Your task to perform on an android device: turn off translation in the chrome app Image 0: 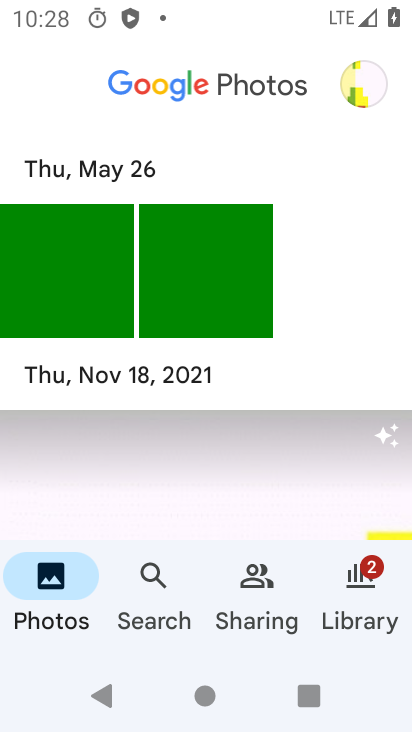
Step 0: press home button
Your task to perform on an android device: turn off translation in the chrome app Image 1: 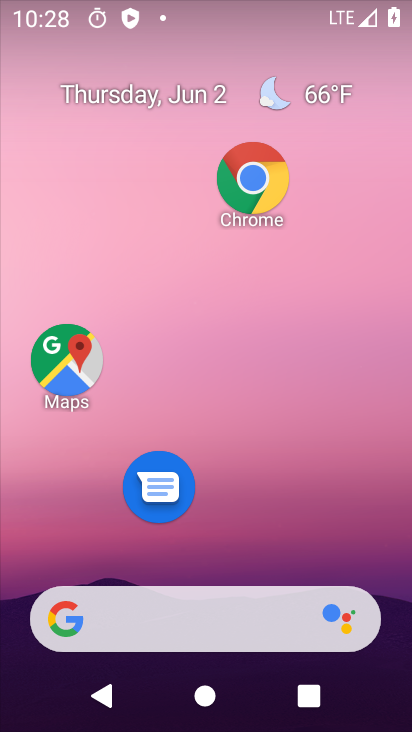
Step 1: click (256, 181)
Your task to perform on an android device: turn off translation in the chrome app Image 2: 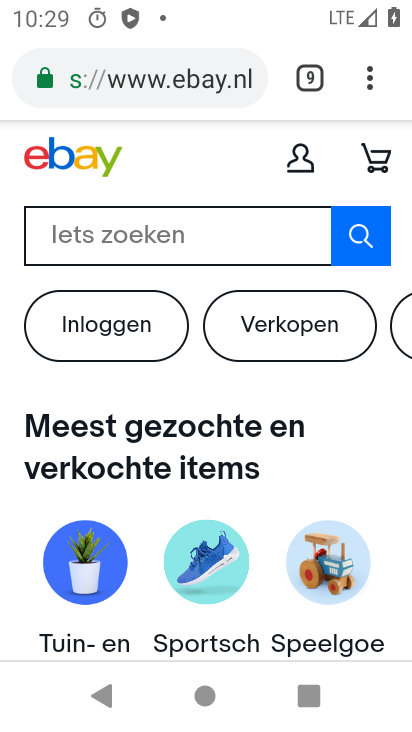
Step 2: click (373, 89)
Your task to perform on an android device: turn off translation in the chrome app Image 3: 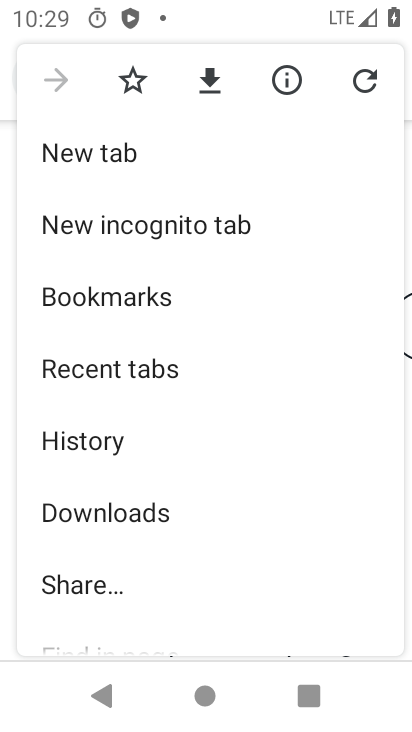
Step 3: drag from (137, 620) to (137, 223)
Your task to perform on an android device: turn off translation in the chrome app Image 4: 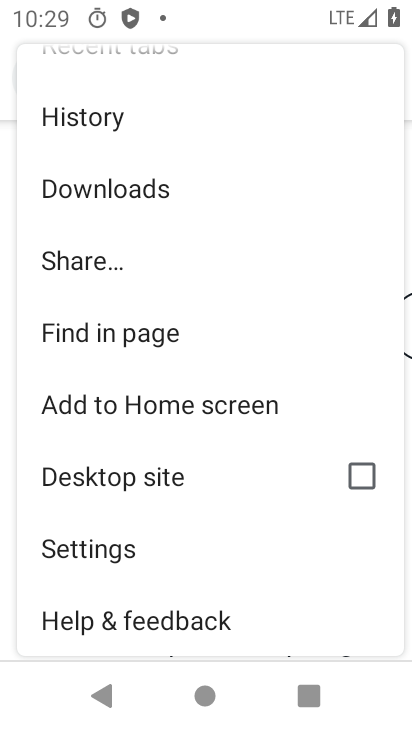
Step 4: click (102, 551)
Your task to perform on an android device: turn off translation in the chrome app Image 5: 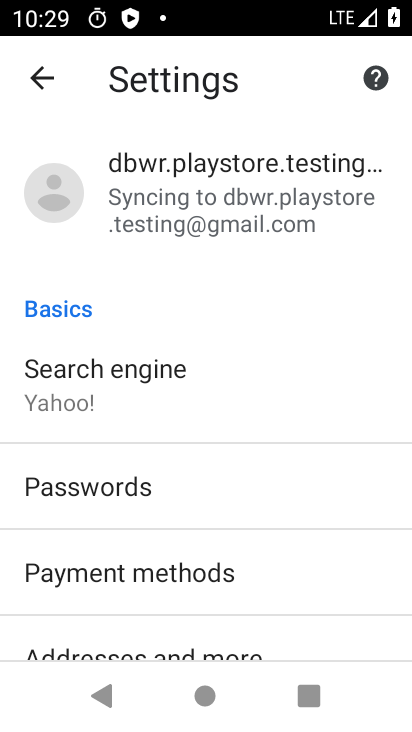
Step 5: drag from (157, 641) to (169, 291)
Your task to perform on an android device: turn off translation in the chrome app Image 6: 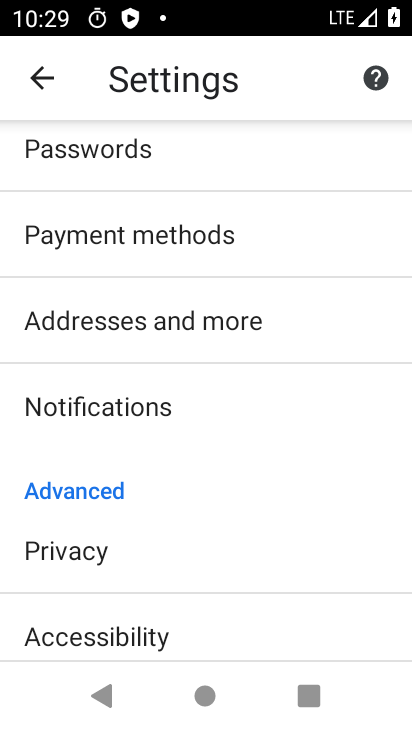
Step 6: drag from (126, 640) to (131, 248)
Your task to perform on an android device: turn off translation in the chrome app Image 7: 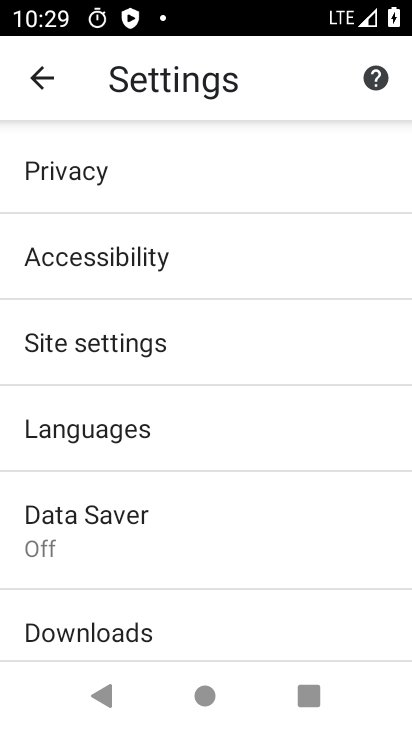
Step 7: click (123, 428)
Your task to perform on an android device: turn off translation in the chrome app Image 8: 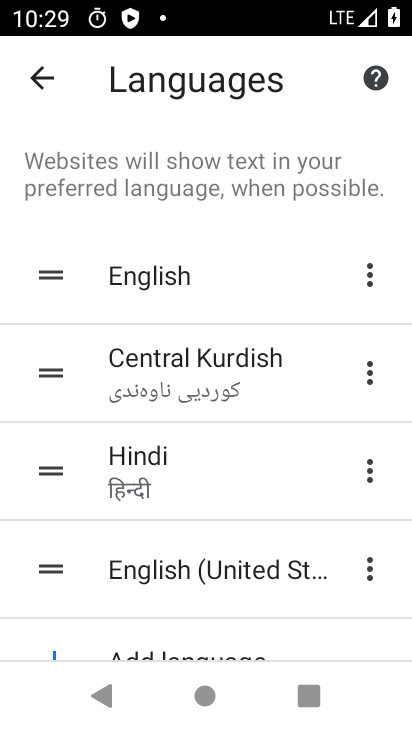
Step 8: task complete